Your task to perform on an android device: Empty the shopping cart on costco.com. Search for "asus zenbook" on costco.com, select the first entry, and add it to the cart. Image 0: 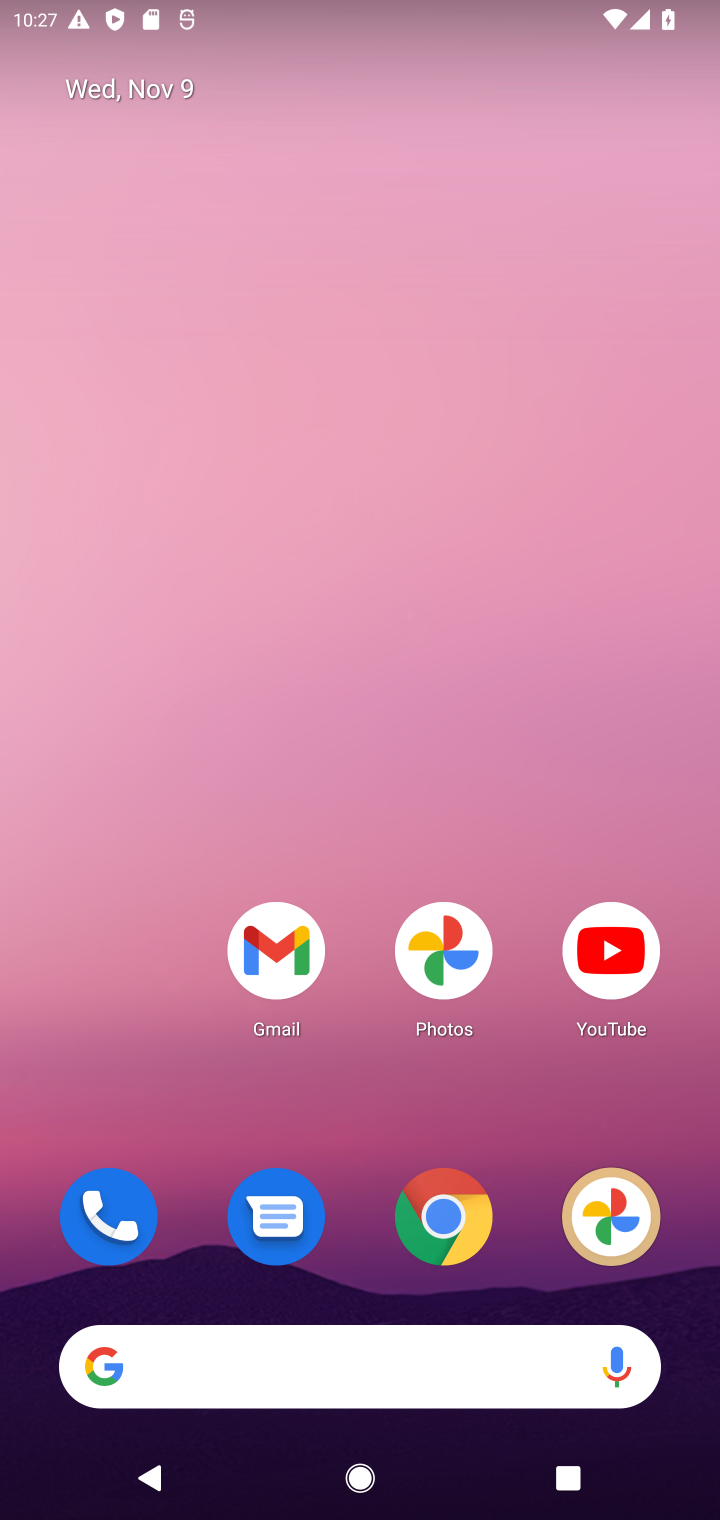
Step 0: drag from (409, 383) to (494, 15)
Your task to perform on an android device: Empty the shopping cart on costco.com. Search for "asus zenbook" on costco.com, select the first entry, and add it to the cart. Image 1: 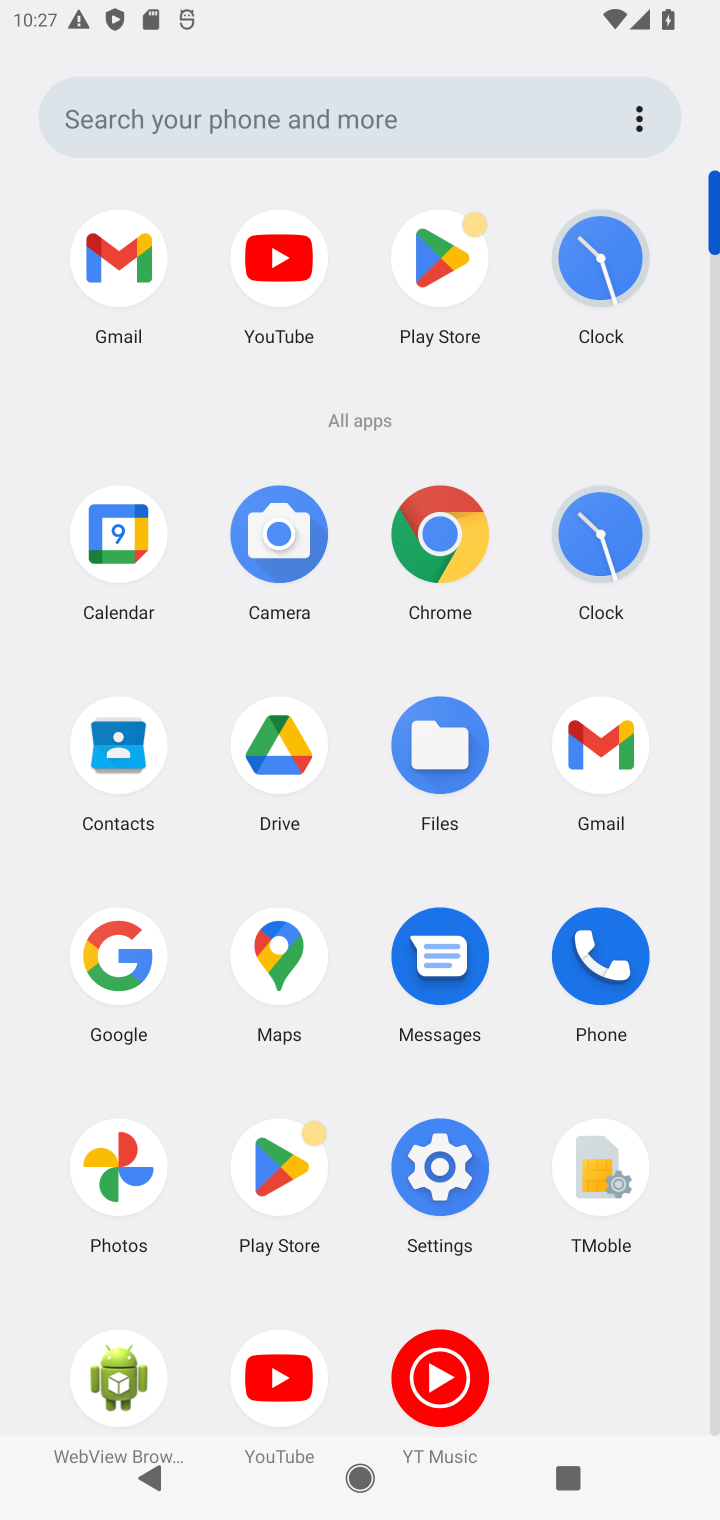
Step 1: click (454, 535)
Your task to perform on an android device: Empty the shopping cart on costco.com. Search for "asus zenbook" on costco.com, select the first entry, and add it to the cart. Image 2: 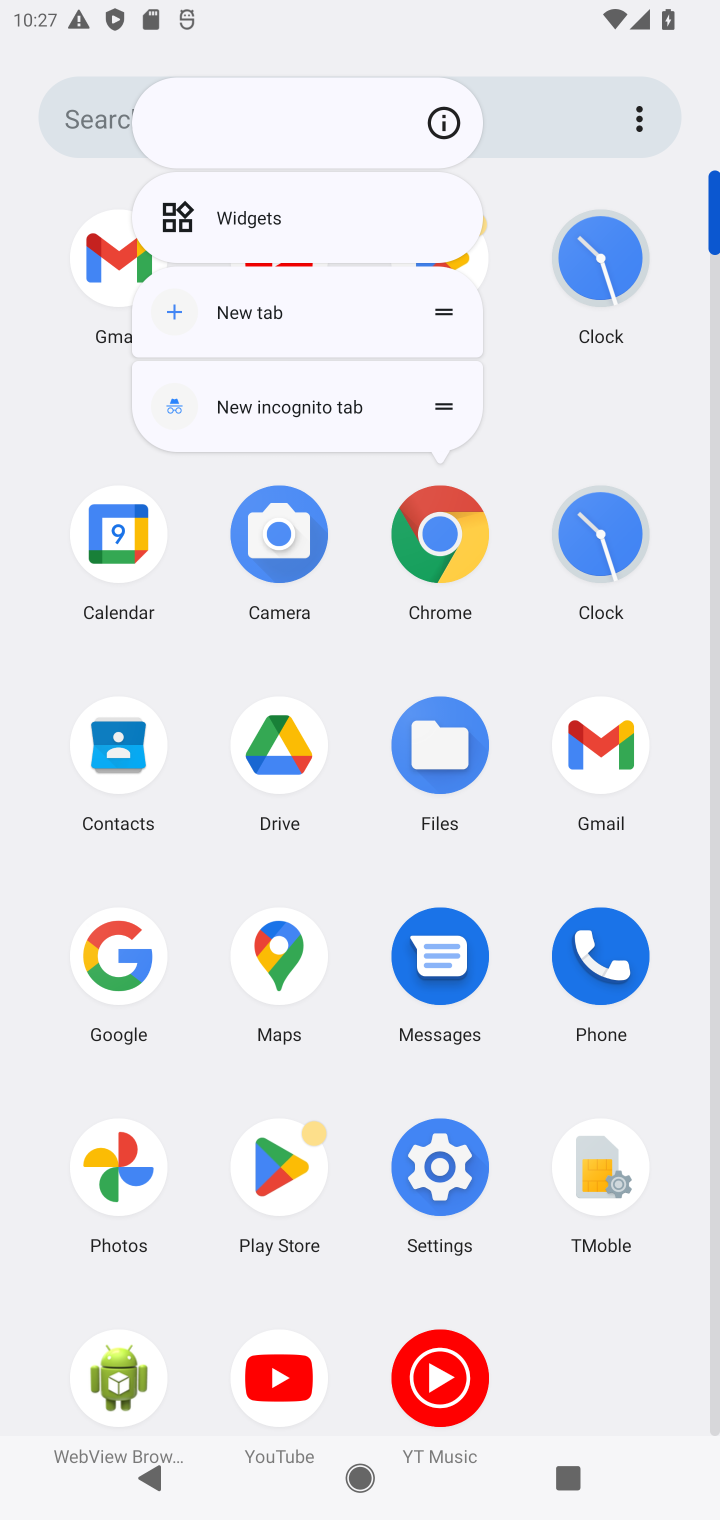
Step 2: click (444, 539)
Your task to perform on an android device: Empty the shopping cart on costco.com. Search for "asus zenbook" on costco.com, select the first entry, and add it to the cart. Image 3: 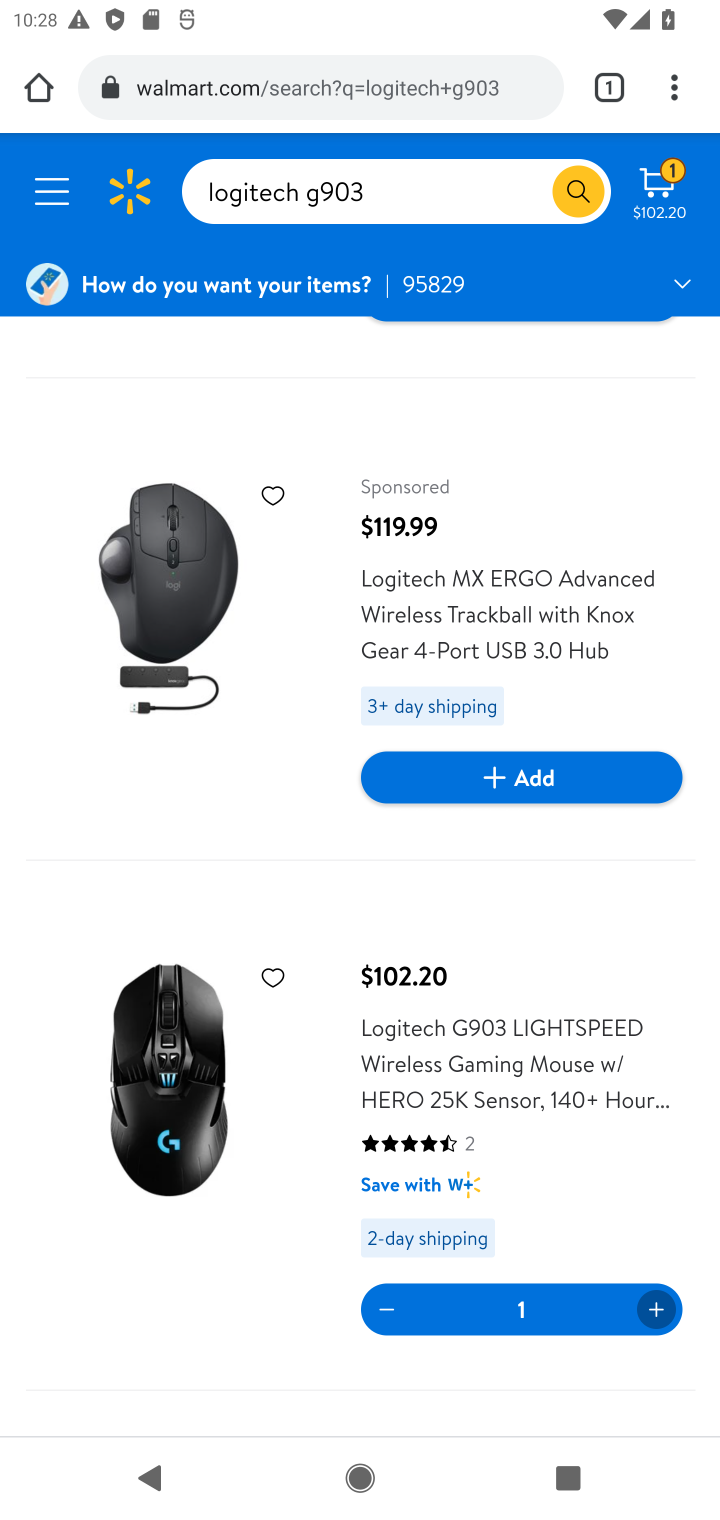
Step 3: click (344, 82)
Your task to perform on an android device: Empty the shopping cart on costco.com. Search for "asus zenbook" on costco.com, select the first entry, and add it to the cart. Image 4: 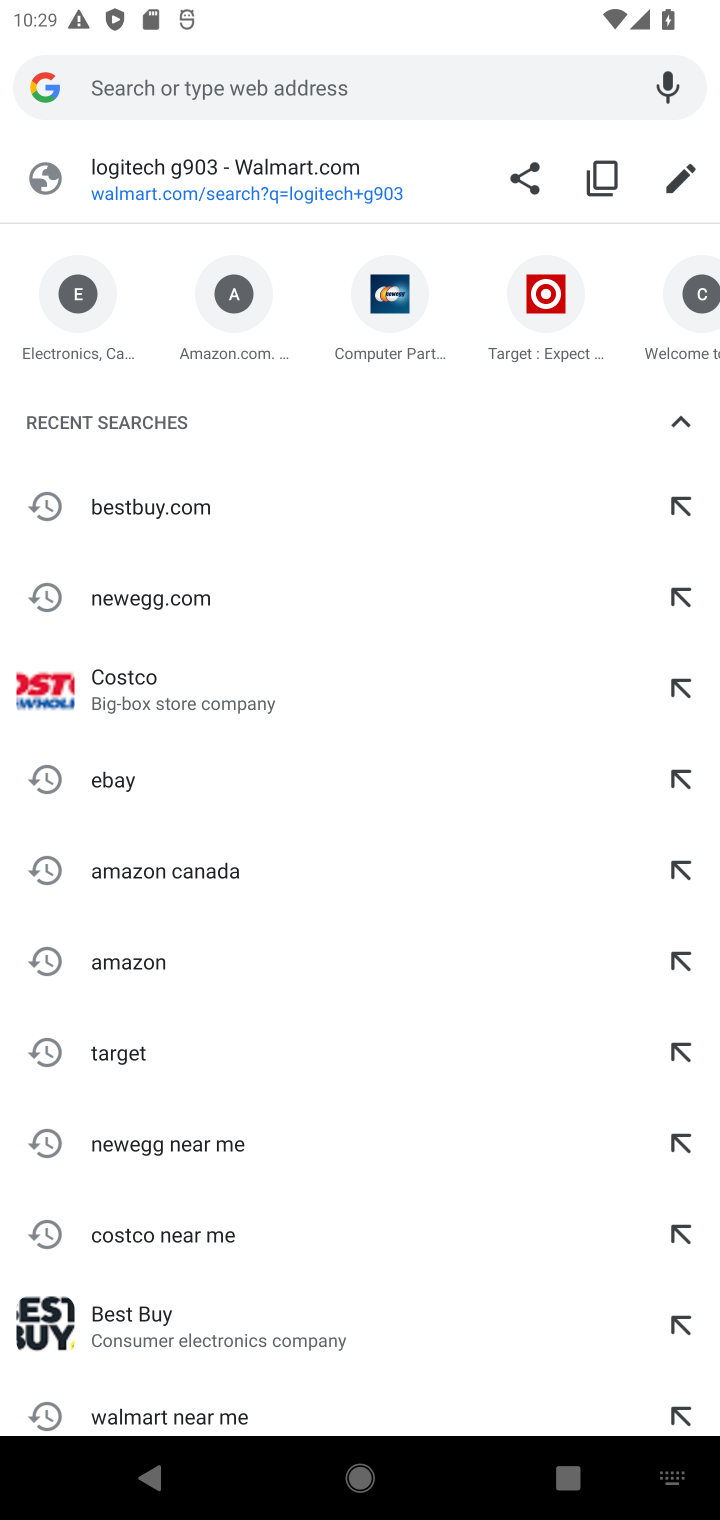
Step 4: type "costco.com"
Your task to perform on an android device: Empty the shopping cart on costco.com. Search for "asus zenbook" on costco.com, select the first entry, and add it to the cart. Image 5: 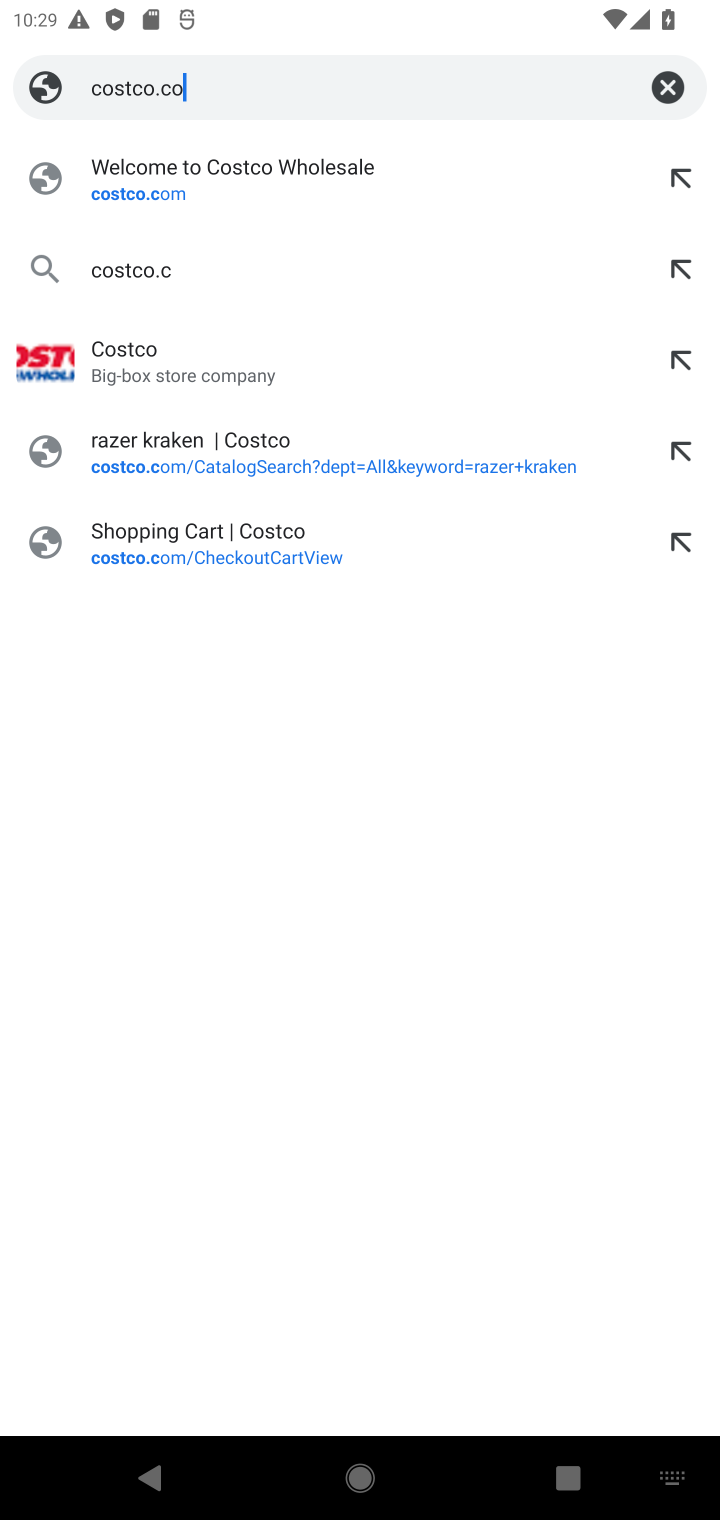
Step 5: press enter
Your task to perform on an android device: Empty the shopping cart on costco.com. Search for "asus zenbook" on costco.com, select the first entry, and add it to the cart. Image 6: 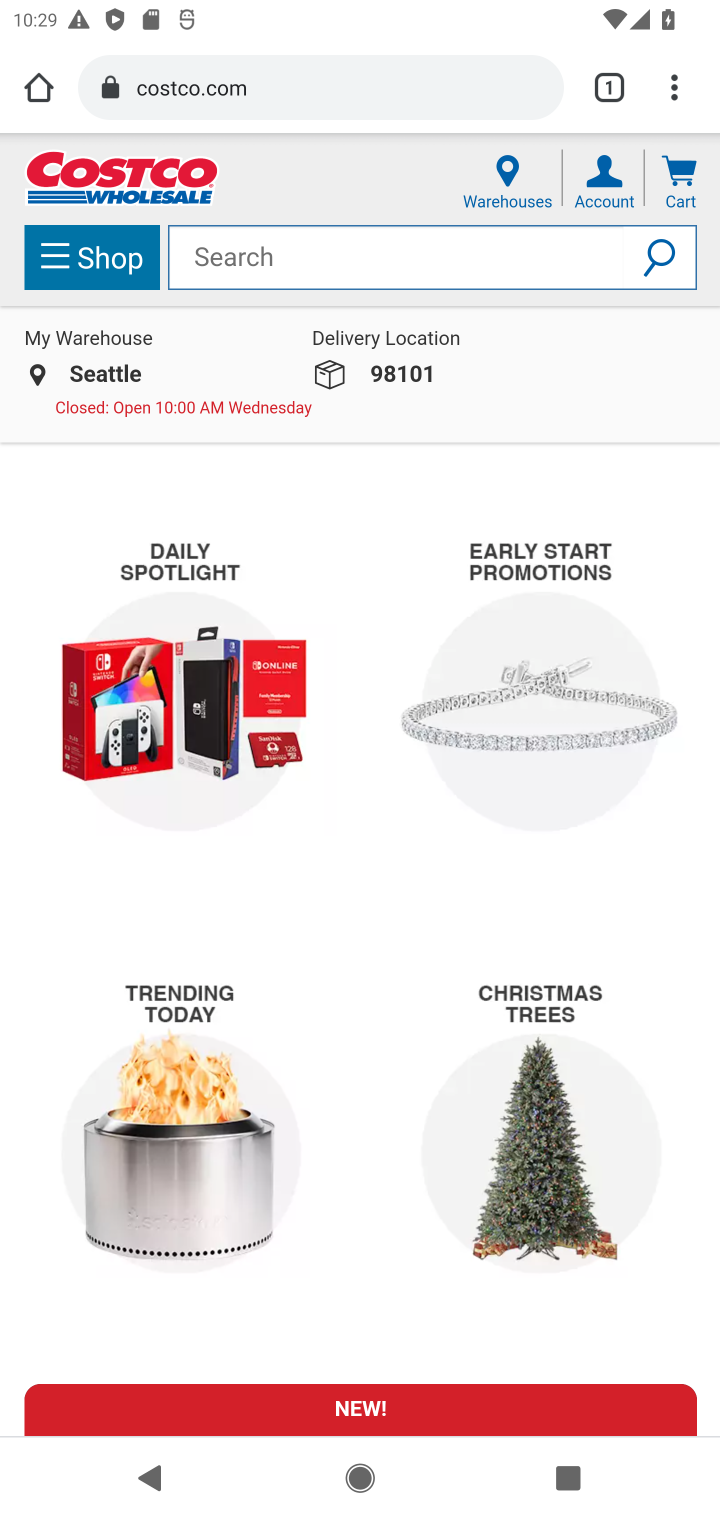
Step 6: click (374, 257)
Your task to perform on an android device: Empty the shopping cart on costco.com. Search for "asus zenbook" on costco.com, select the first entry, and add it to the cart. Image 7: 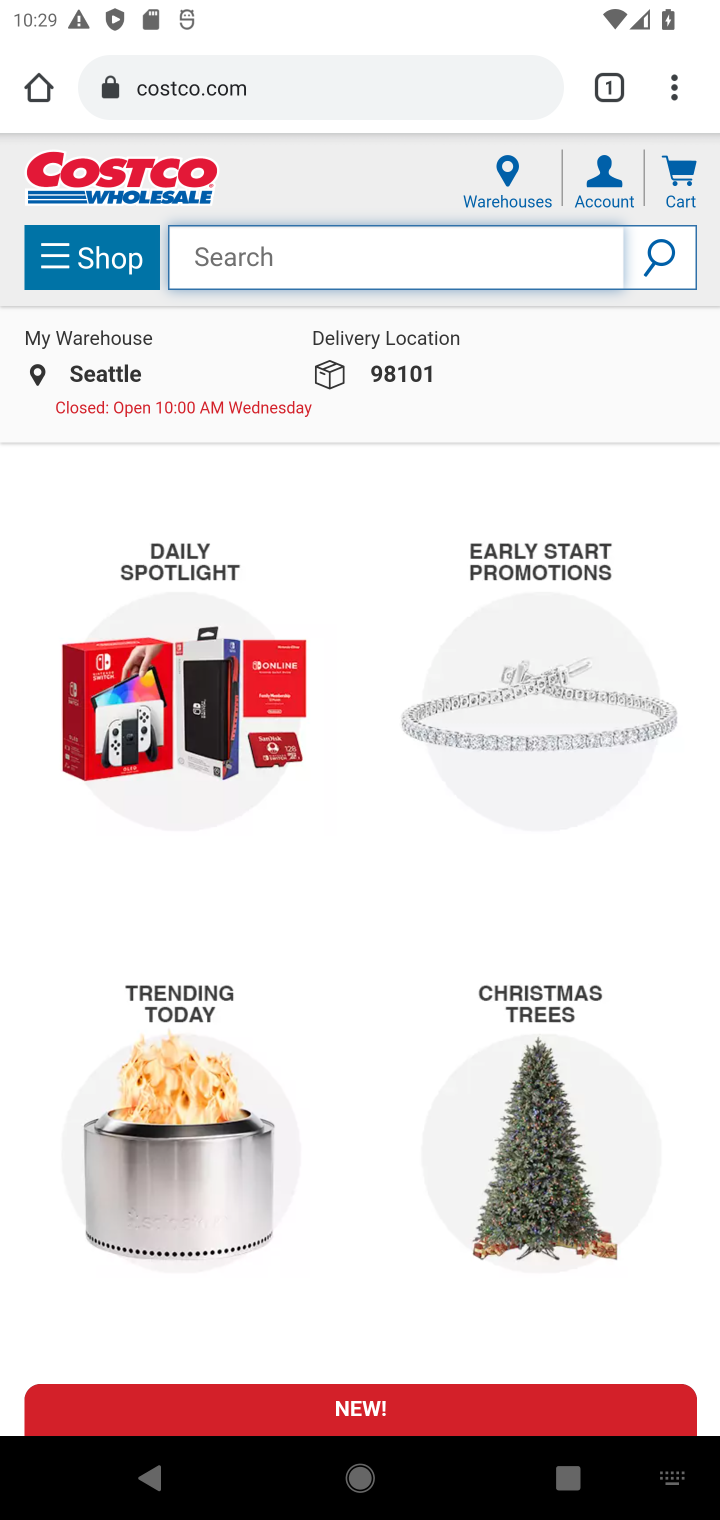
Step 7: type "asus zenbook"
Your task to perform on an android device: Empty the shopping cart on costco.com. Search for "asus zenbook" on costco.com, select the first entry, and add it to the cart. Image 8: 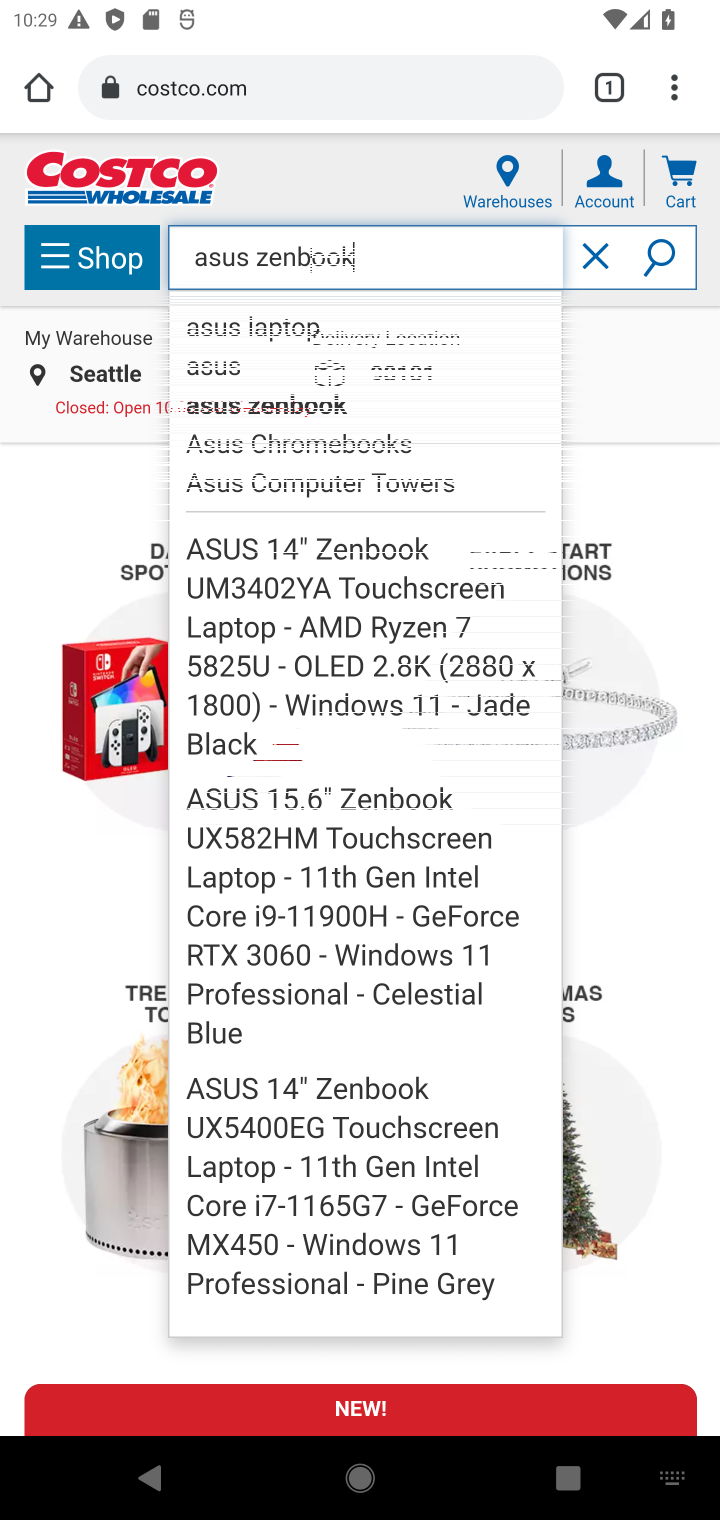
Step 8: press enter
Your task to perform on an android device: Empty the shopping cart on costco.com. Search for "asus zenbook" on costco.com, select the first entry, and add it to the cart. Image 9: 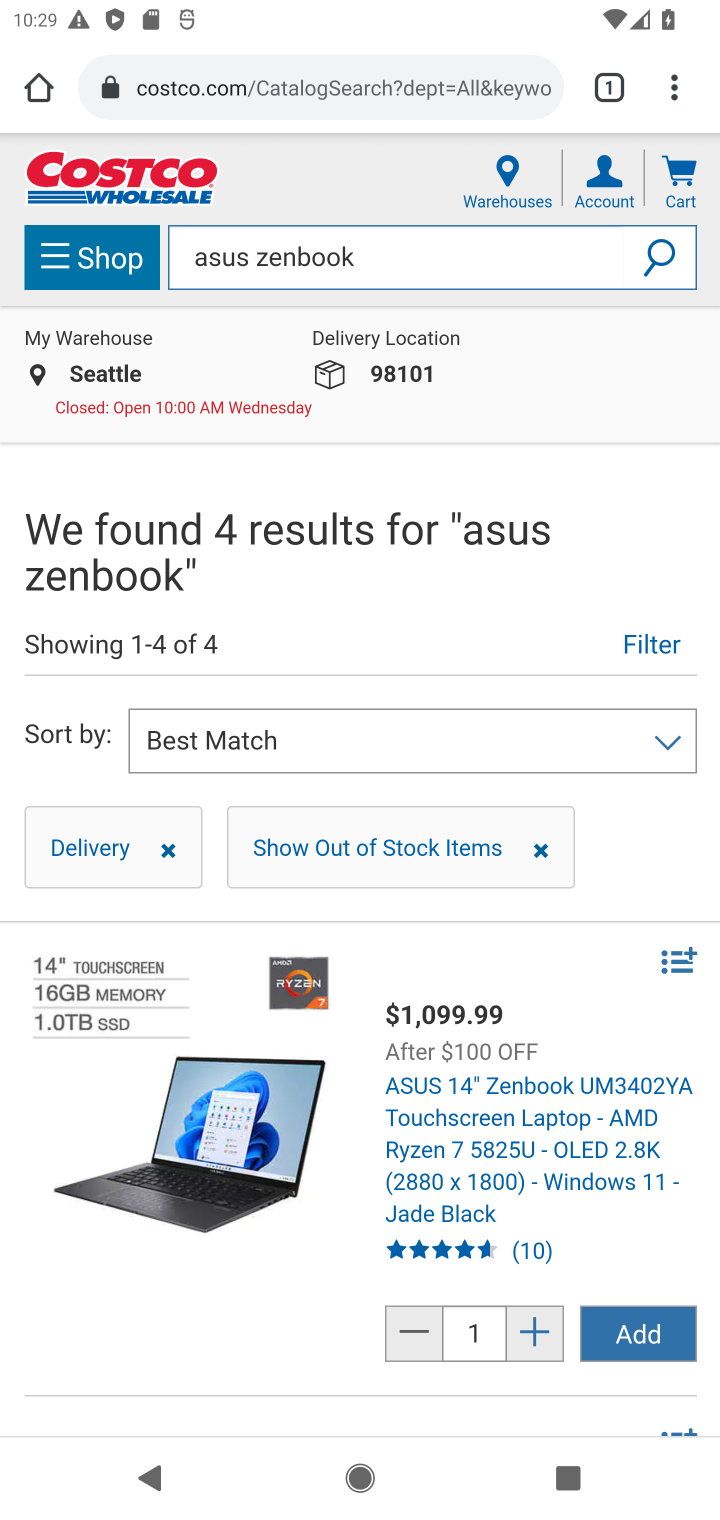
Step 9: click (500, 1182)
Your task to perform on an android device: Empty the shopping cart on costco.com. Search for "asus zenbook" on costco.com, select the first entry, and add it to the cart. Image 10: 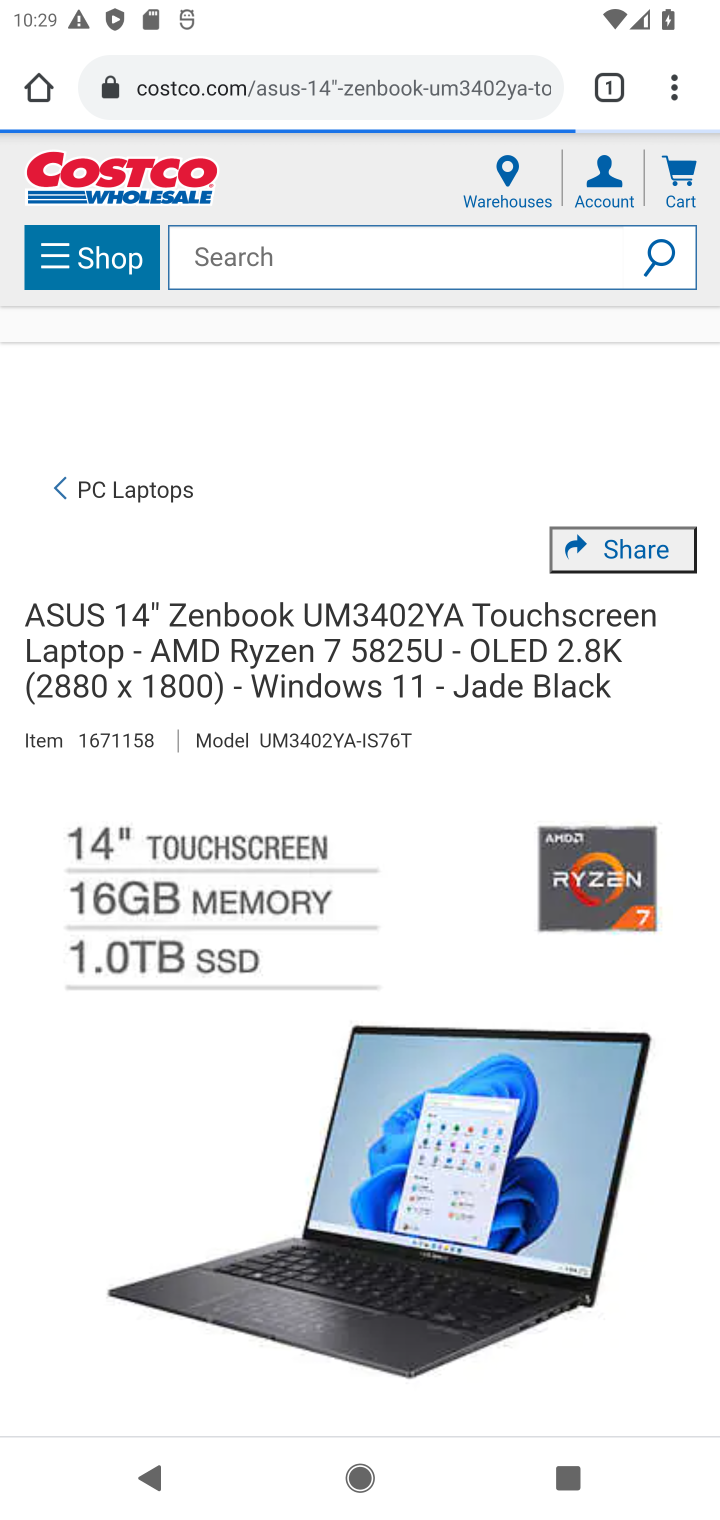
Step 10: drag from (347, 1027) to (293, 193)
Your task to perform on an android device: Empty the shopping cart on costco.com. Search for "asus zenbook" on costco.com, select the first entry, and add it to the cart. Image 11: 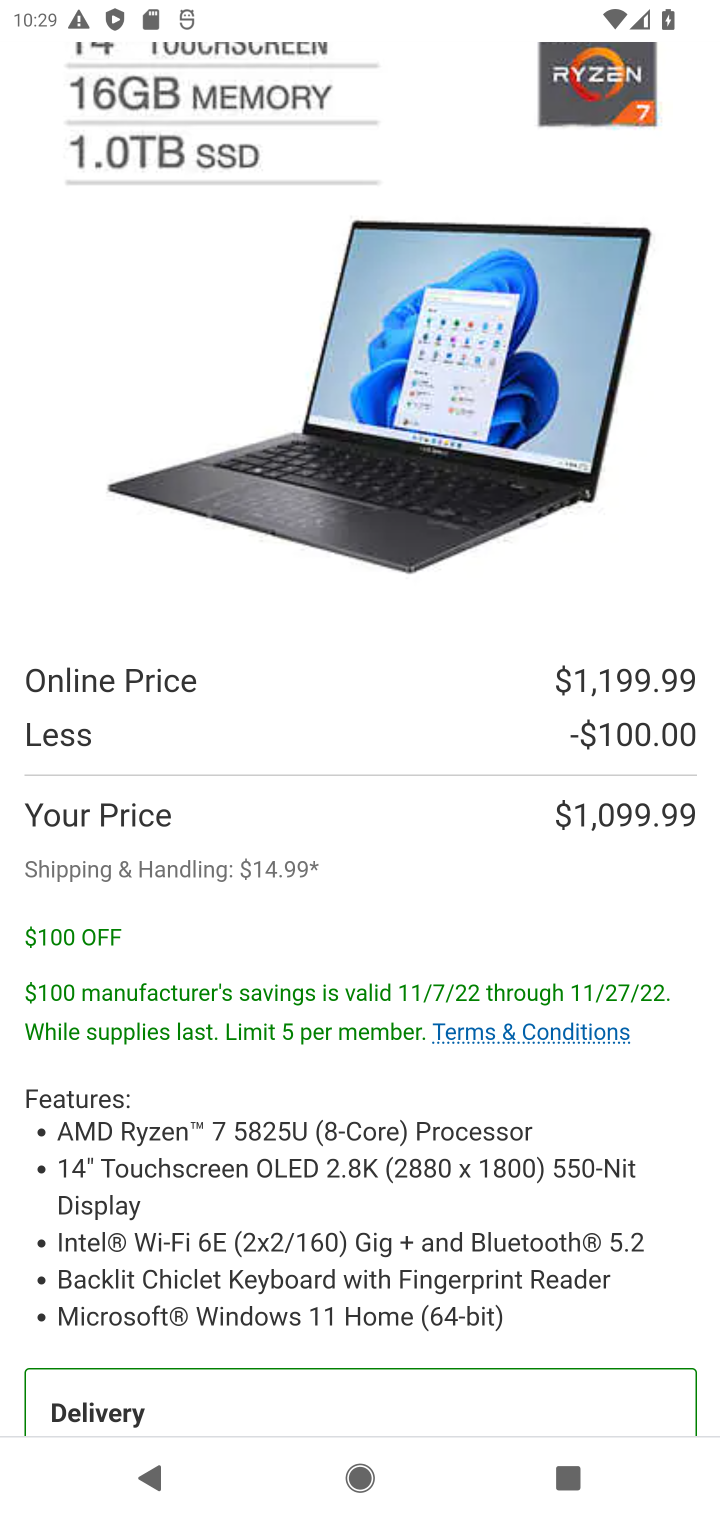
Step 11: drag from (466, 787) to (487, 266)
Your task to perform on an android device: Empty the shopping cart on costco.com. Search for "asus zenbook" on costco.com, select the first entry, and add it to the cart. Image 12: 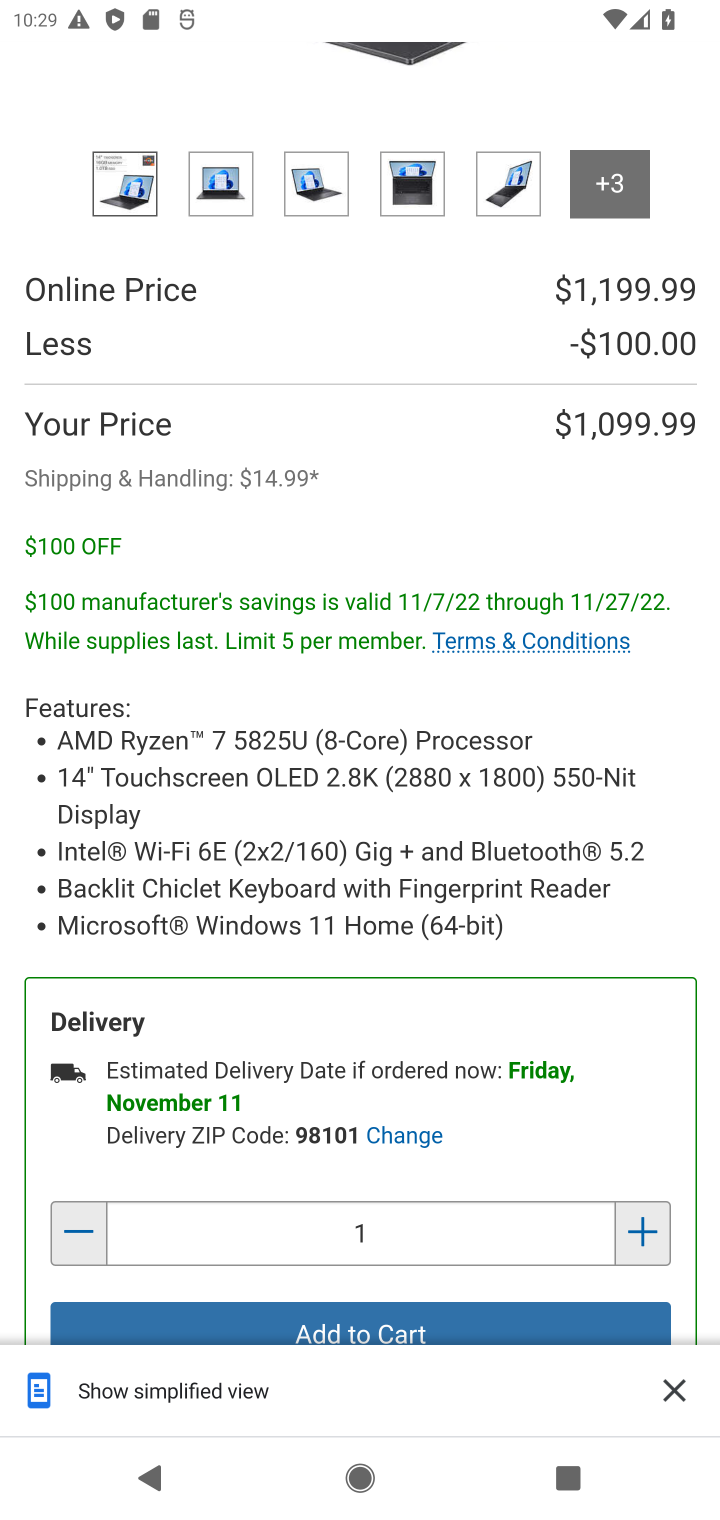
Step 12: click (416, 1329)
Your task to perform on an android device: Empty the shopping cart on costco.com. Search for "asus zenbook" on costco.com, select the first entry, and add it to the cart. Image 13: 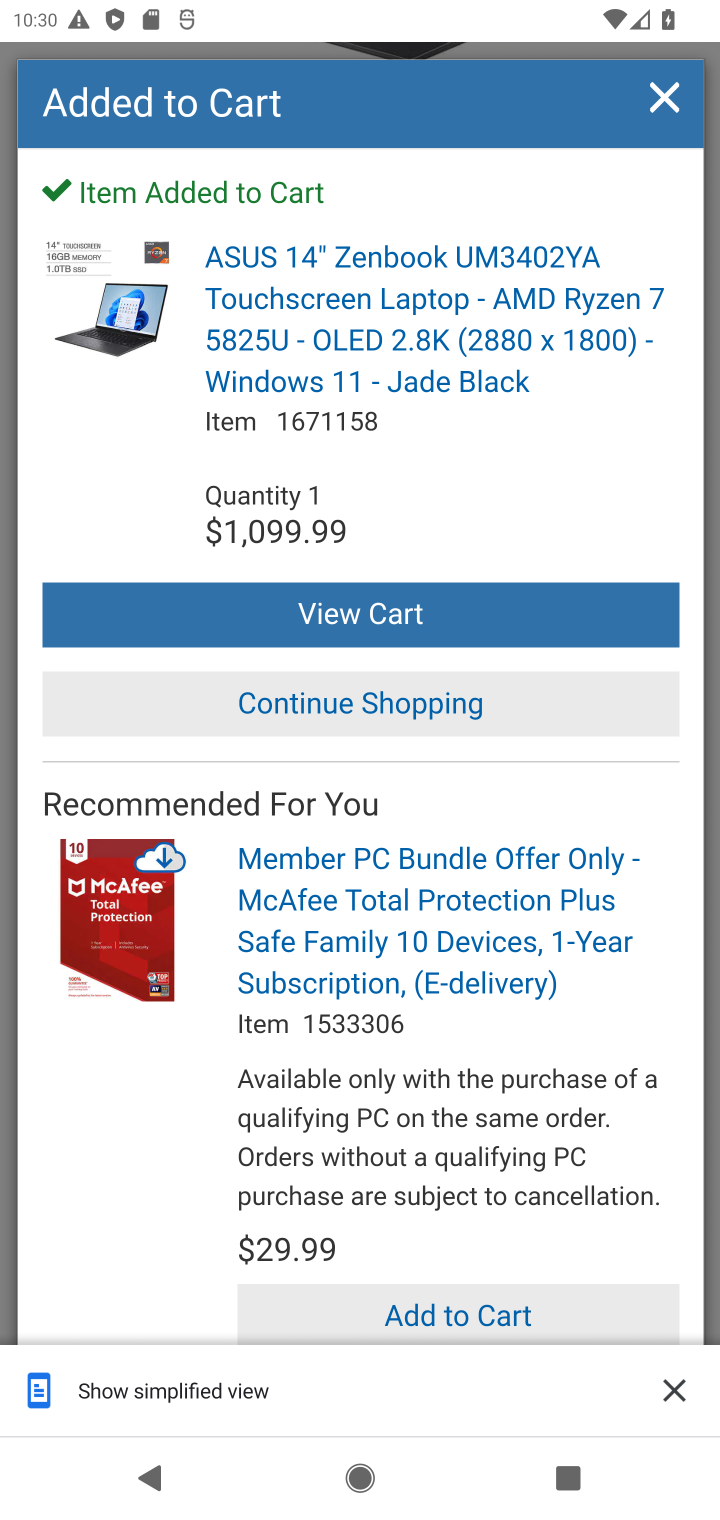
Step 13: task complete